Your task to perform on an android device: turn notification dots on Image 0: 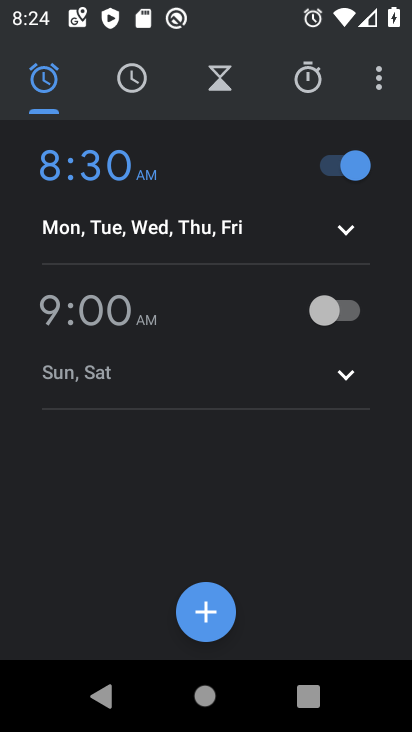
Step 0: press back button
Your task to perform on an android device: turn notification dots on Image 1: 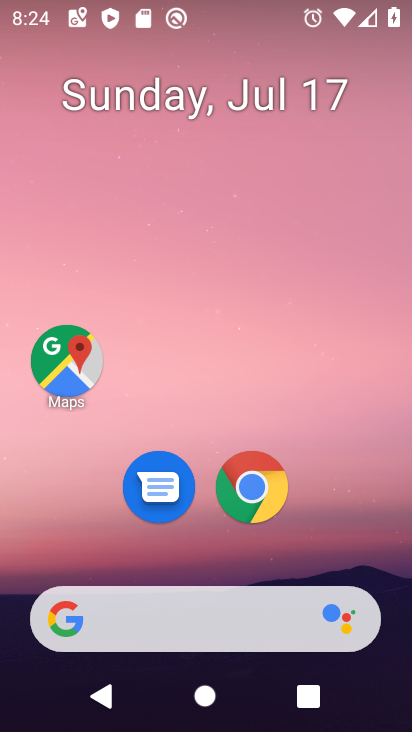
Step 1: drag from (135, 591) to (198, 0)
Your task to perform on an android device: turn notification dots on Image 2: 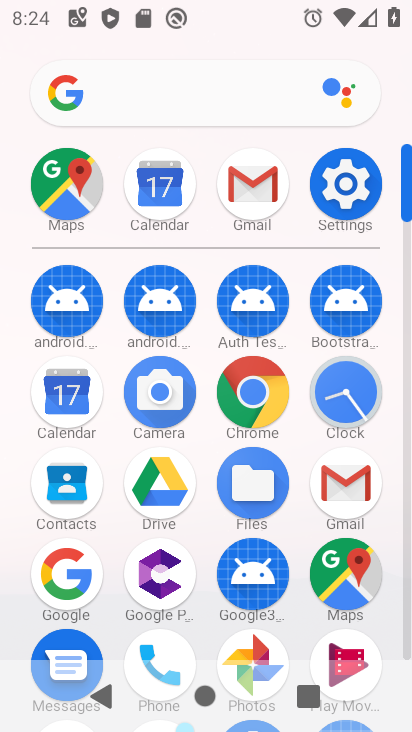
Step 2: click (350, 176)
Your task to perform on an android device: turn notification dots on Image 3: 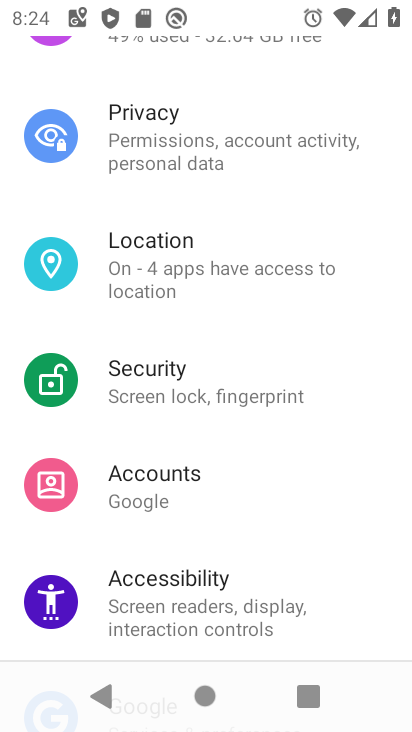
Step 3: drag from (229, 267) to (110, 729)
Your task to perform on an android device: turn notification dots on Image 4: 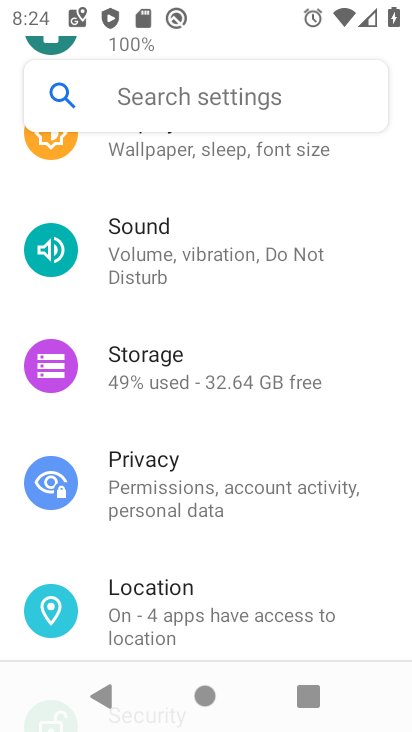
Step 4: drag from (237, 348) to (195, 699)
Your task to perform on an android device: turn notification dots on Image 5: 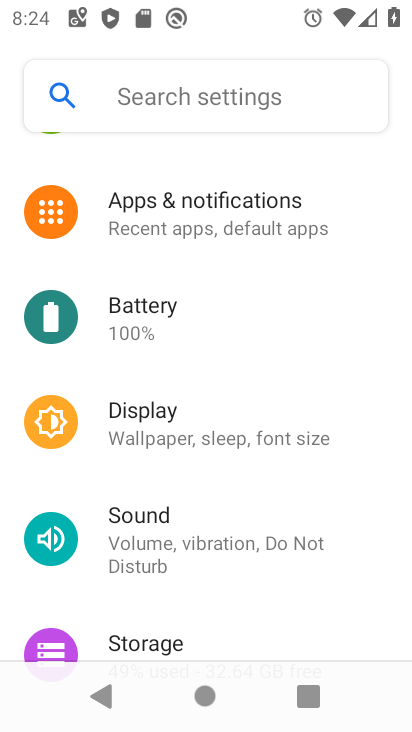
Step 5: click (253, 221)
Your task to perform on an android device: turn notification dots on Image 6: 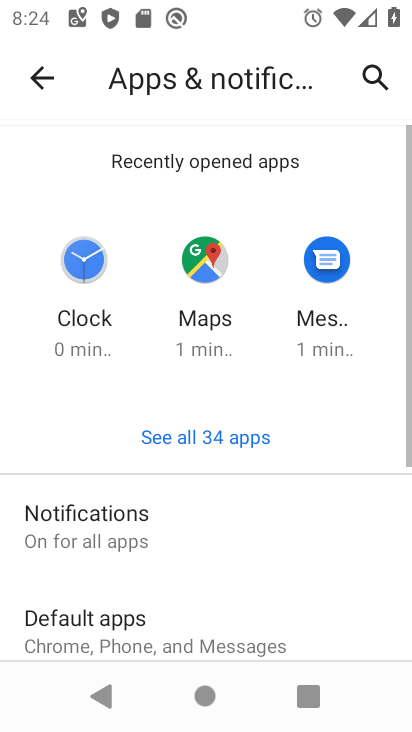
Step 6: drag from (166, 599) to (208, 60)
Your task to perform on an android device: turn notification dots on Image 7: 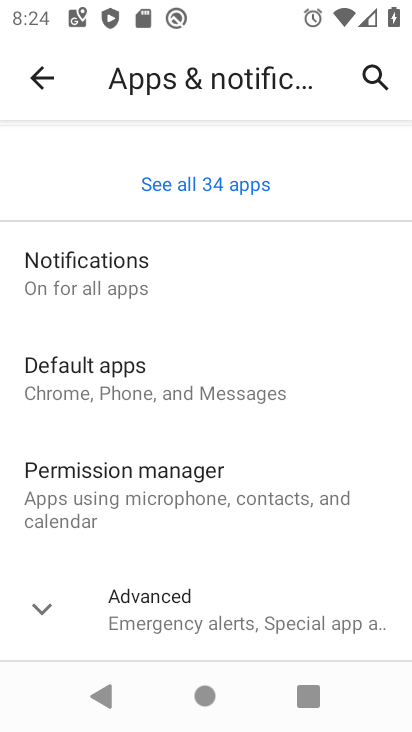
Step 7: click (170, 592)
Your task to perform on an android device: turn notification dots on Image 8: 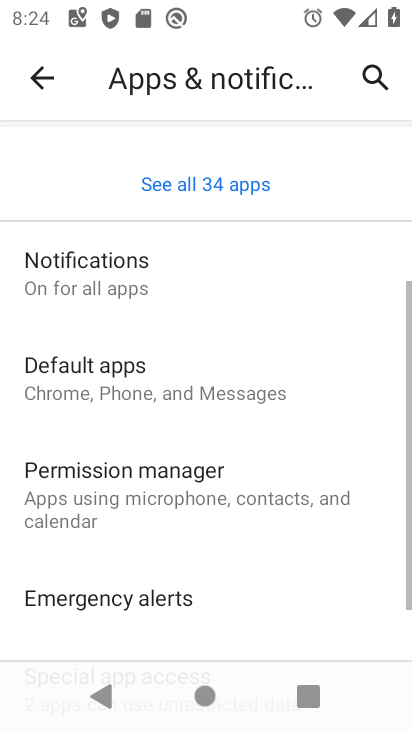
Step 8: drag from (168, 594) to (274, 92)
Your task to perform on an android device: turn notification dots on Image 9: 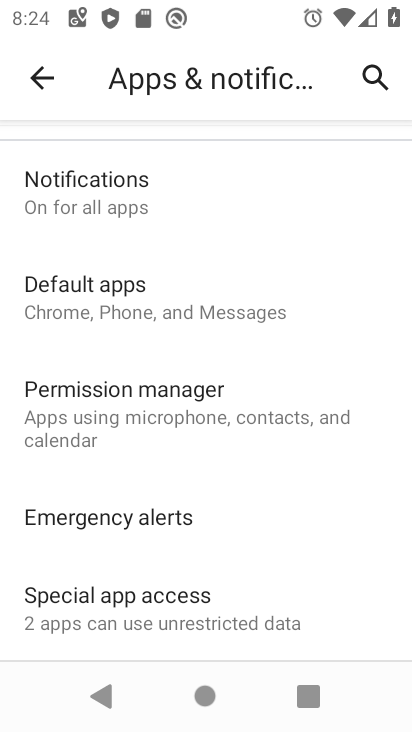
Step 9: click (120, 199)
Your task to perform on an android device: turn notification dots on Image 10: 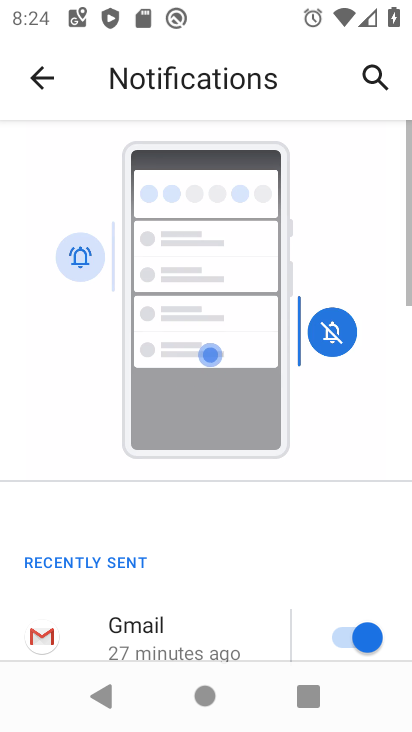
Step 10: drag from (135, 648) to (285, 93)
Your task to perform on an android device: turn notification dots on Image 11: 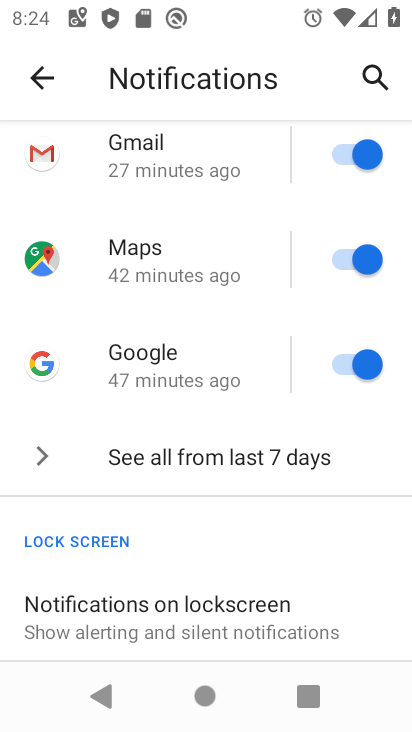
Step 11: drag from (166, 591) to (236, 84)
Your task to perform on an android device: turn notification dots on Image 12: 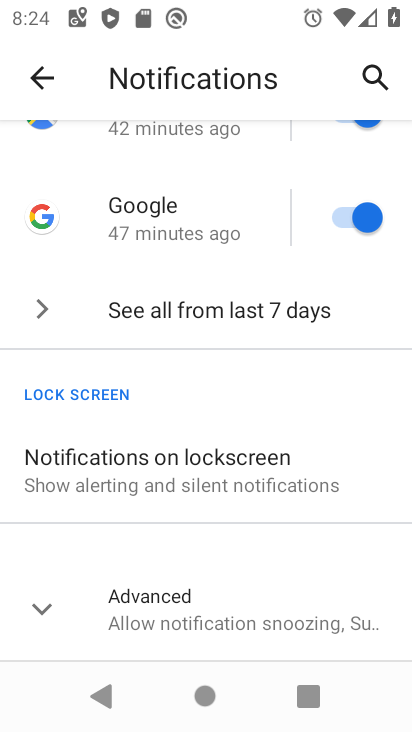
Step 12: click (142, 606)
Your task to perform on an android device: turn notification dots on Image 13: 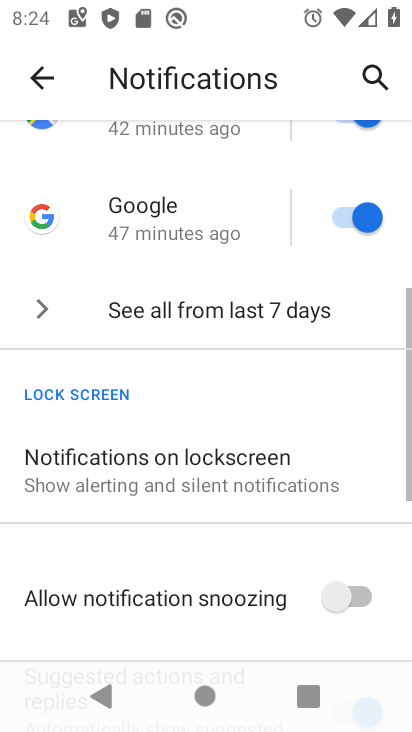
Step 13: task complete